Your task to perform on an android device: clear all cookies in the chrome app Image 0: 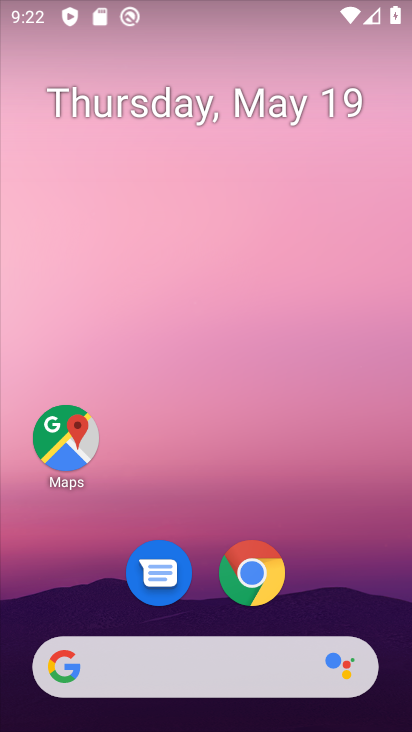
Step 0: click (237, 565)
Your task to perform on an android device: clear all cookies in the chrome app Image 1: 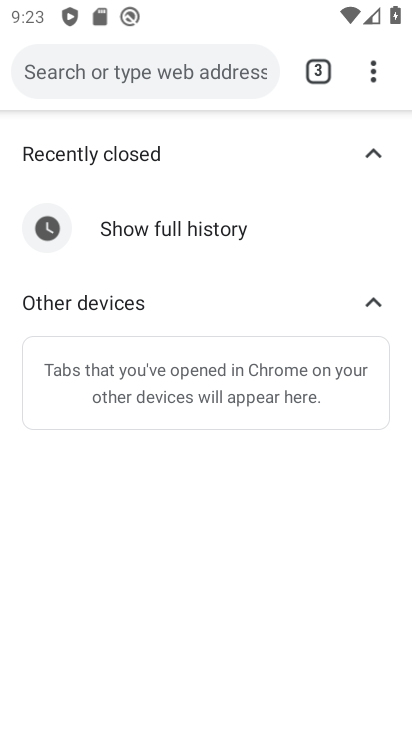
Step 1: drag from (372, 68) to (116, 394)
Your task to perform on an android device: clear all cookies in the chrome app Image 2: 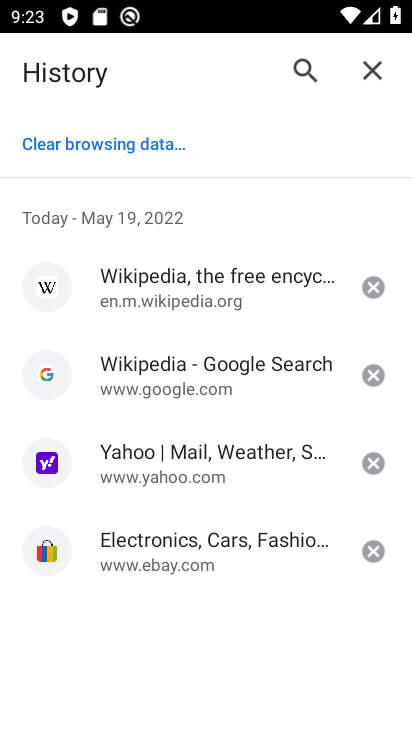
Step 2: click (97, 147)
Your task to perform on an android device: clear all cookies in the chrome app Image 3: 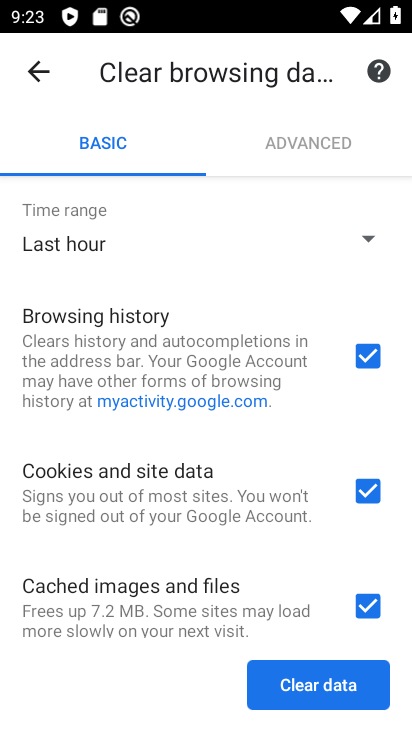
Step 3: click (304, 684)
Your task to perform on an android device: clear all cookies in the chrome app Image 4: 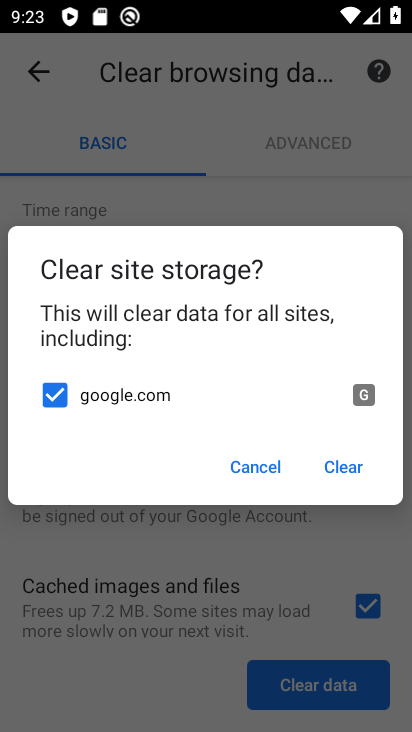
Step 4: click (327, 474)
Your task to perform on an android device: clear all cookies in the chrome app Image 5: 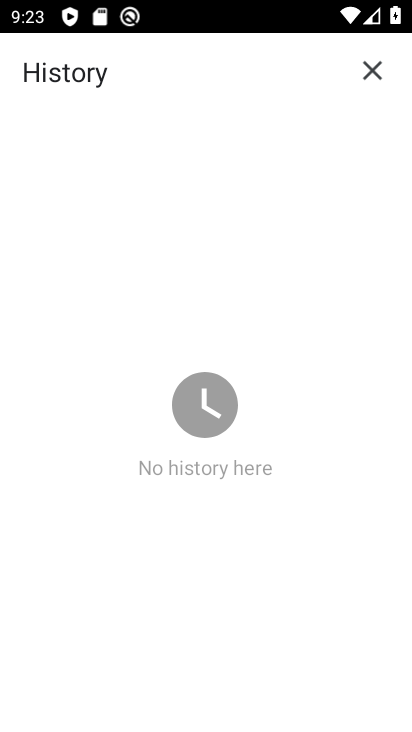
Step 5: task complete